Your task to perform on an android device: Open settings Image 0: 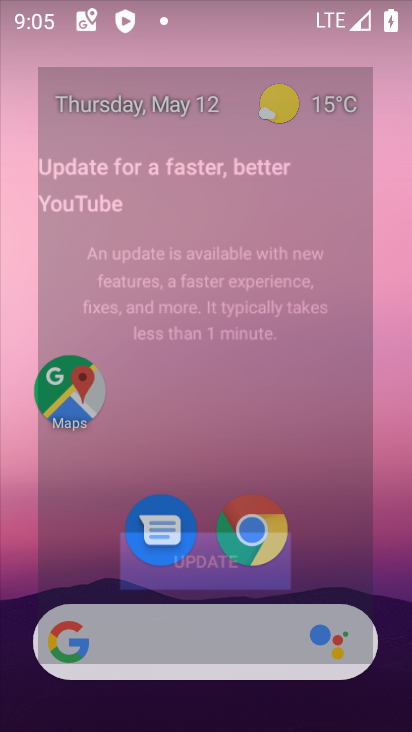
Step 0: drag from (180, 697) to (368, 298)
Your task to perform on an android device: Open settings Image 1: 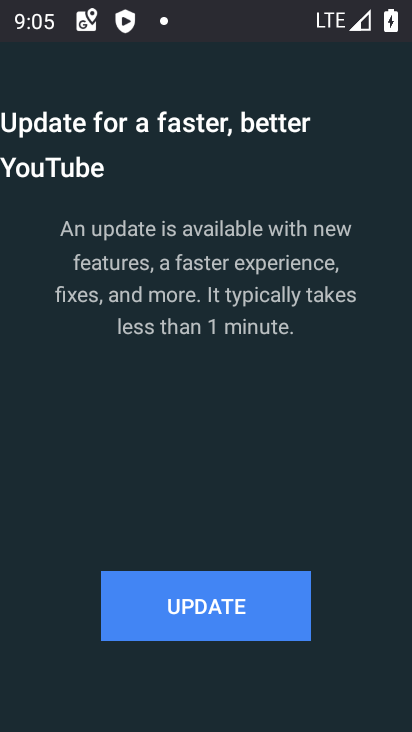
Step 1: task complete